Your task to perform on an android device: change your default location settings in chrome Image 0: 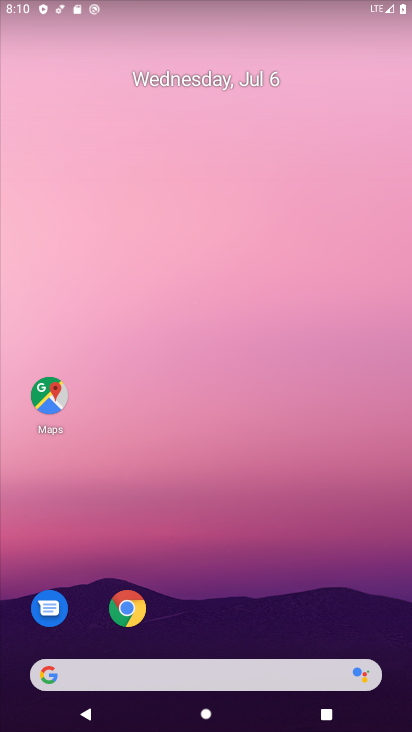
Step 0: drag from (388, 616) to (291, 85)
Your task to perform on an android device: change your default location settings in chrome Image 1: 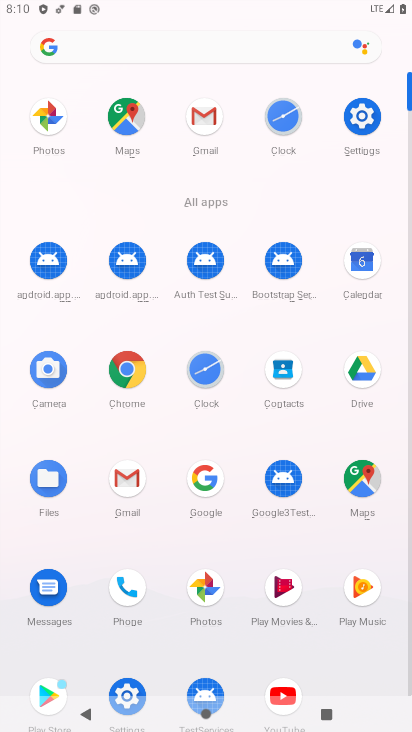
Step 1: click (135, 386)
Your task to perform on an android device: change your default location settings in chrome Image 2: 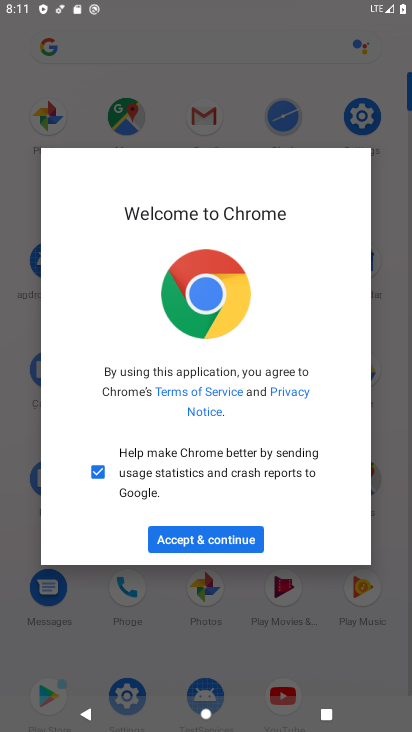
Step 2: click (200, 539)
Your task to perform on an android device: change your default location settings in chrome Image 3: 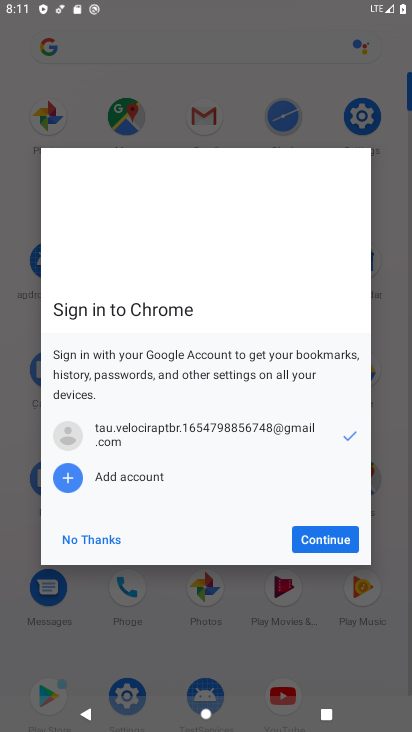
Step 3: click (323, 543)
Your task to perform on an android device: change your default location settings in chrome Image 4: 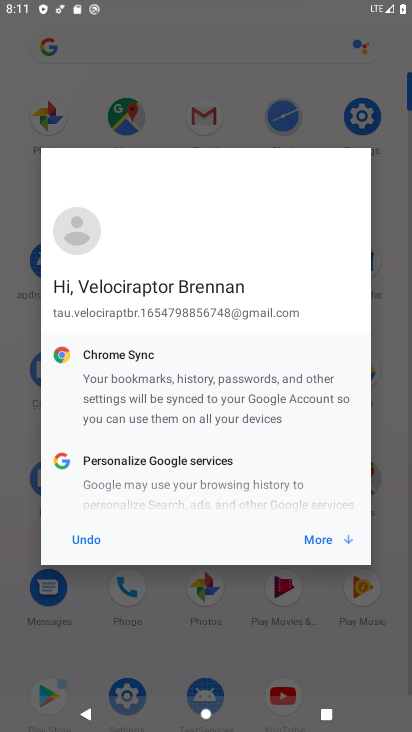
Step 4: click (323, 543)
Your task to perform on an android device: change your default location settings in chrome Image 5: 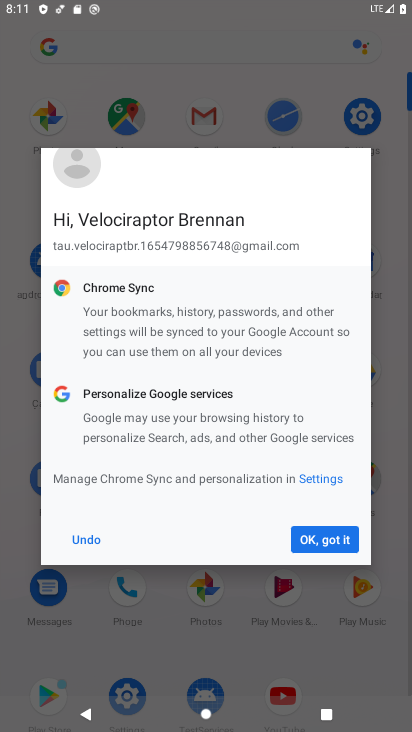
Step 5: click (323, 543)
Your task to perform on an android device: change your default location settings in chrome Image 6: 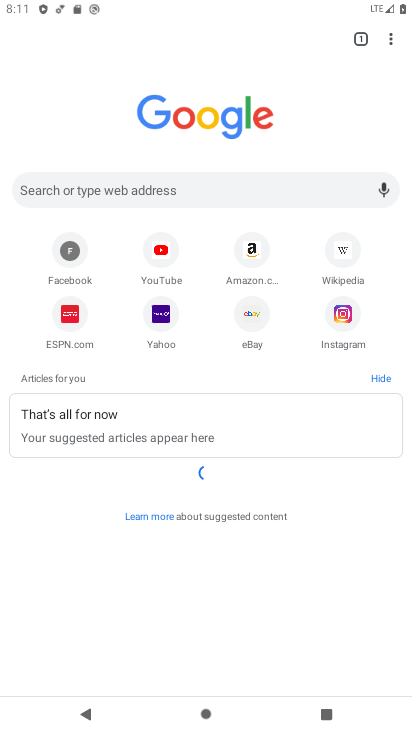
Step 6: click (392, 33)
Your task to perform on an android device: change your default location settings in chrome Image 7: 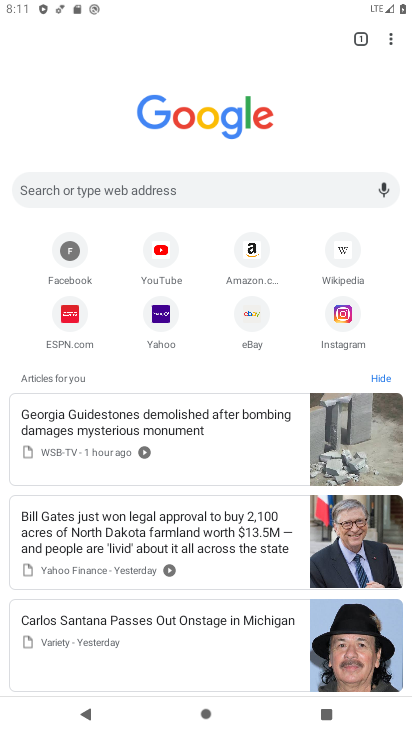
Step 7: click (385, 32)
Your task to perform on an android device: change your default location settings in chrome Image 8: 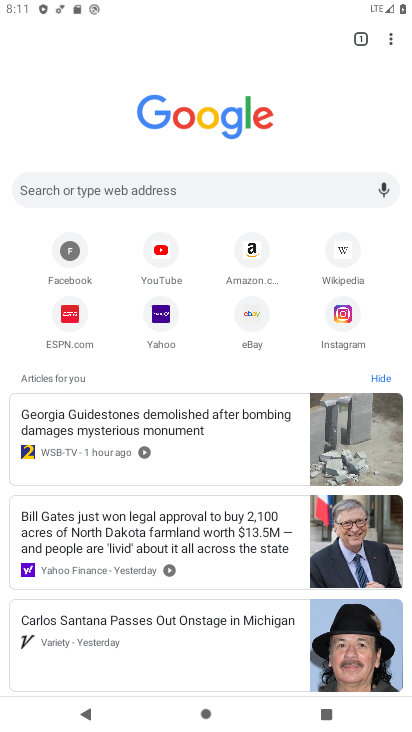
Step 8: click (386, 34)
Your task to perform on an android device: change your default location settings in chrome Image 9: 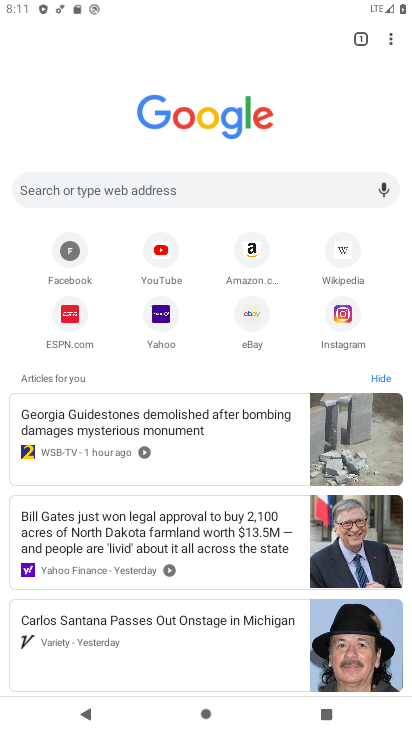
Step 9: click (388, 33)
Your task to perform on an android device: change your default location settings in chrome Image 10: 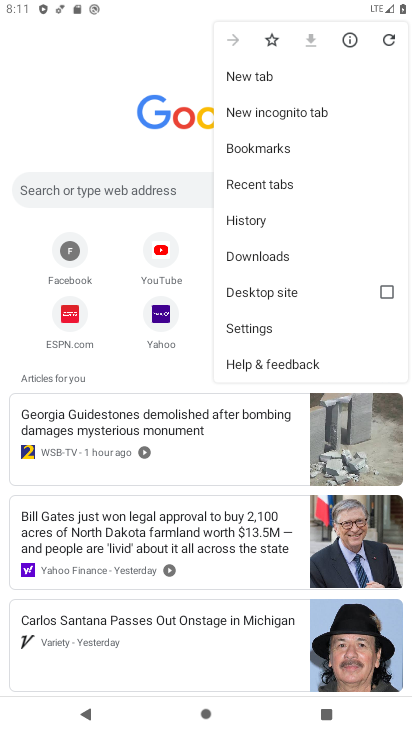
Step 10: click (259, 324)
Your task to perform on an android device: change your default location settings in chrome Image 11: 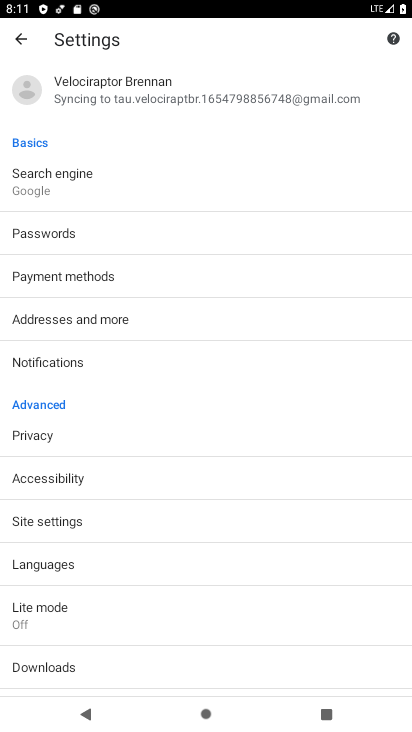
Step 11: click (13, 179)
Your task to perform on an android device: change your default location settings in chrome Image 12: 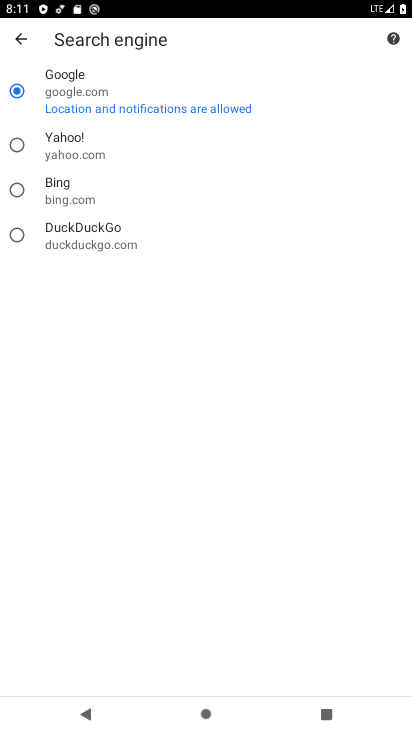
Step 12: click (47, 149)
Your task to perform on an android device: change your default location settings in chrome Image 13: 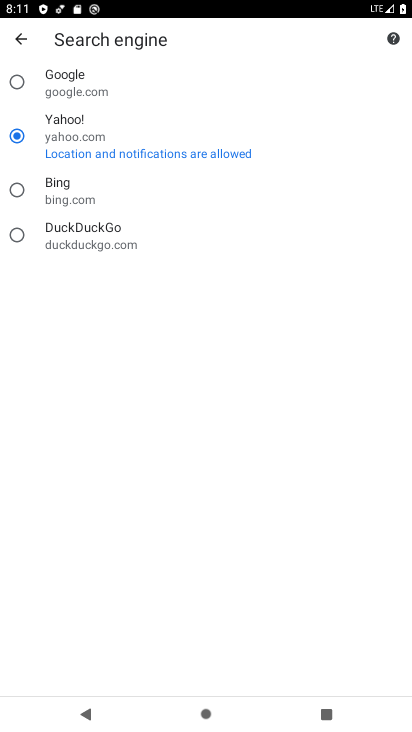
Step 13: task complete